Your task to perform on an android device: change the clock display to show seconds Image 0: 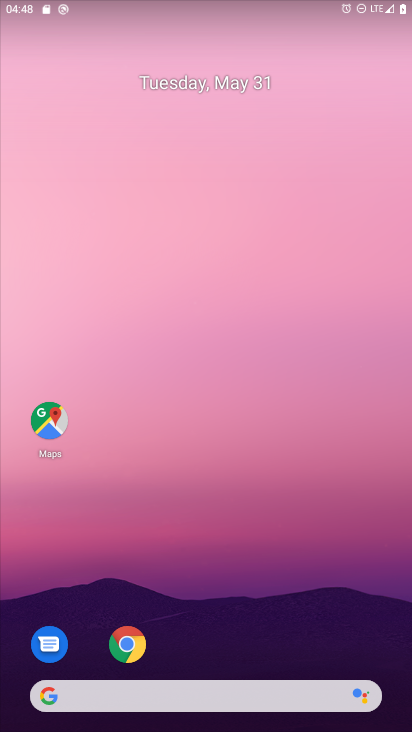
Step 0: drag from (300, 561) to (283, 115)
Your task to perform on an android device: change the clock display to show seconds Image 1: 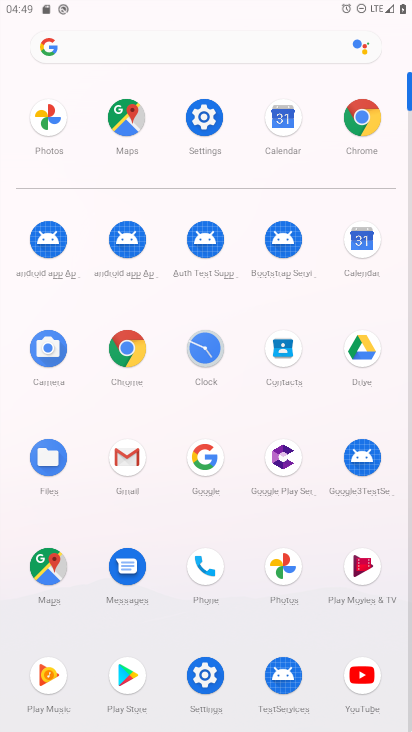
Step 1: click (194, 112)
Your task to perform on an android device: change the clock display to show seconds Image 2: 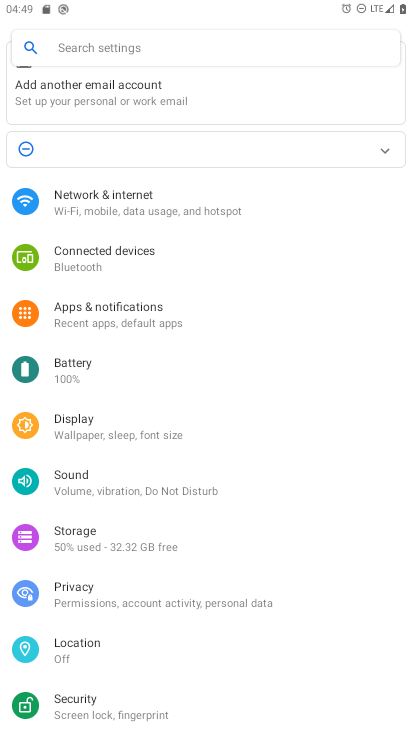
Step 2: press home button
Your task to perform on an android device: change the clock display to show seconds Image 3: 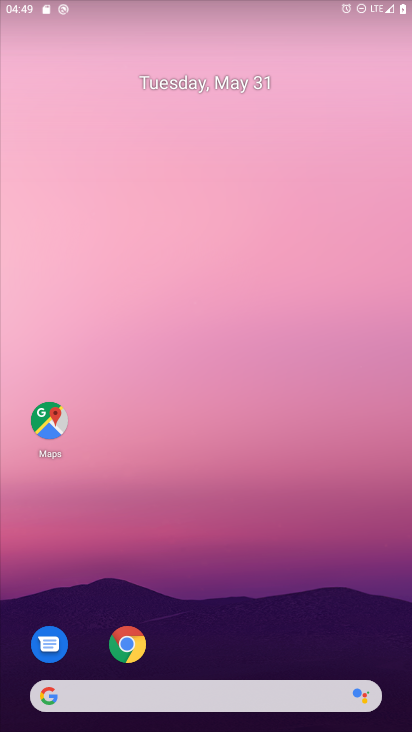
Step 3: drag from (314, 609) to (308, 123)
Your task to perform on an android device: change the clock display to show seconds Image 4: 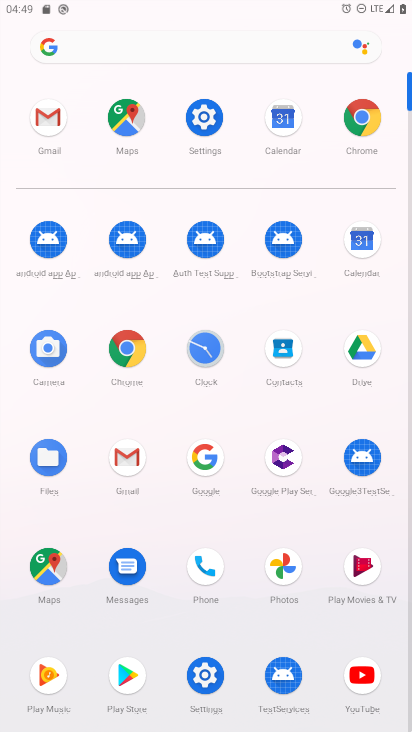
Step 4: click (213, 342)
Your task to perform on an android device: change the clock display to show seconds Image 5: 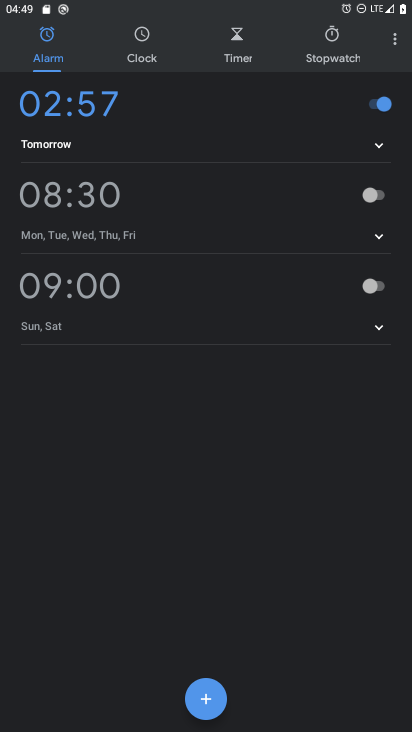
Step 5: click (393, 36)
Your task to perform on an android device: change the clock display to show seconds Image 6: 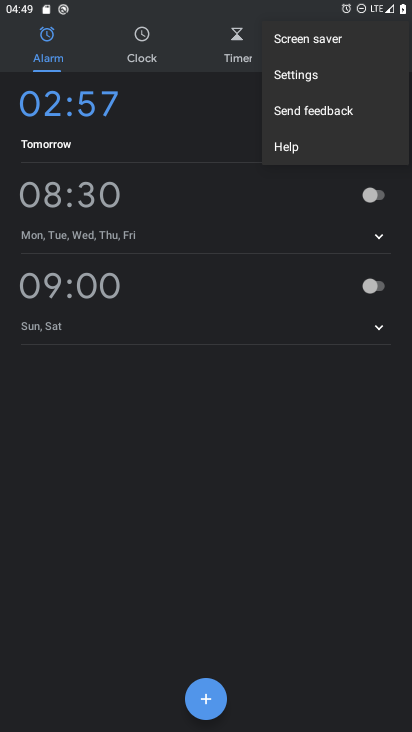
Step 6: click (308, 79)
Your task to perform on an android device: change the clock display to show seconds Image 7: 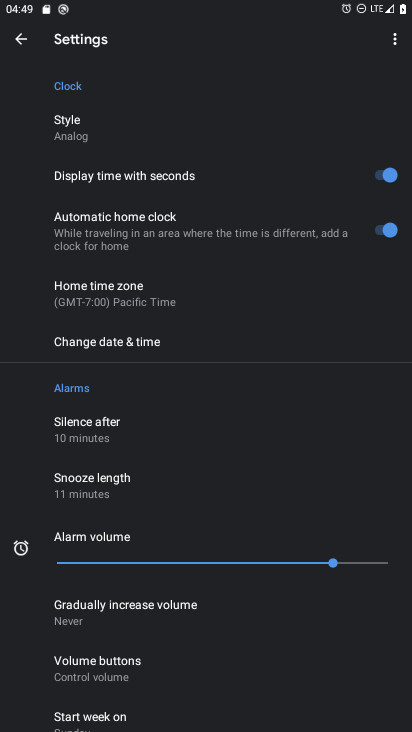
Step 7: task complete